Your task to perform on an android device: remove spam from my inbox in the gmail app Image 0: 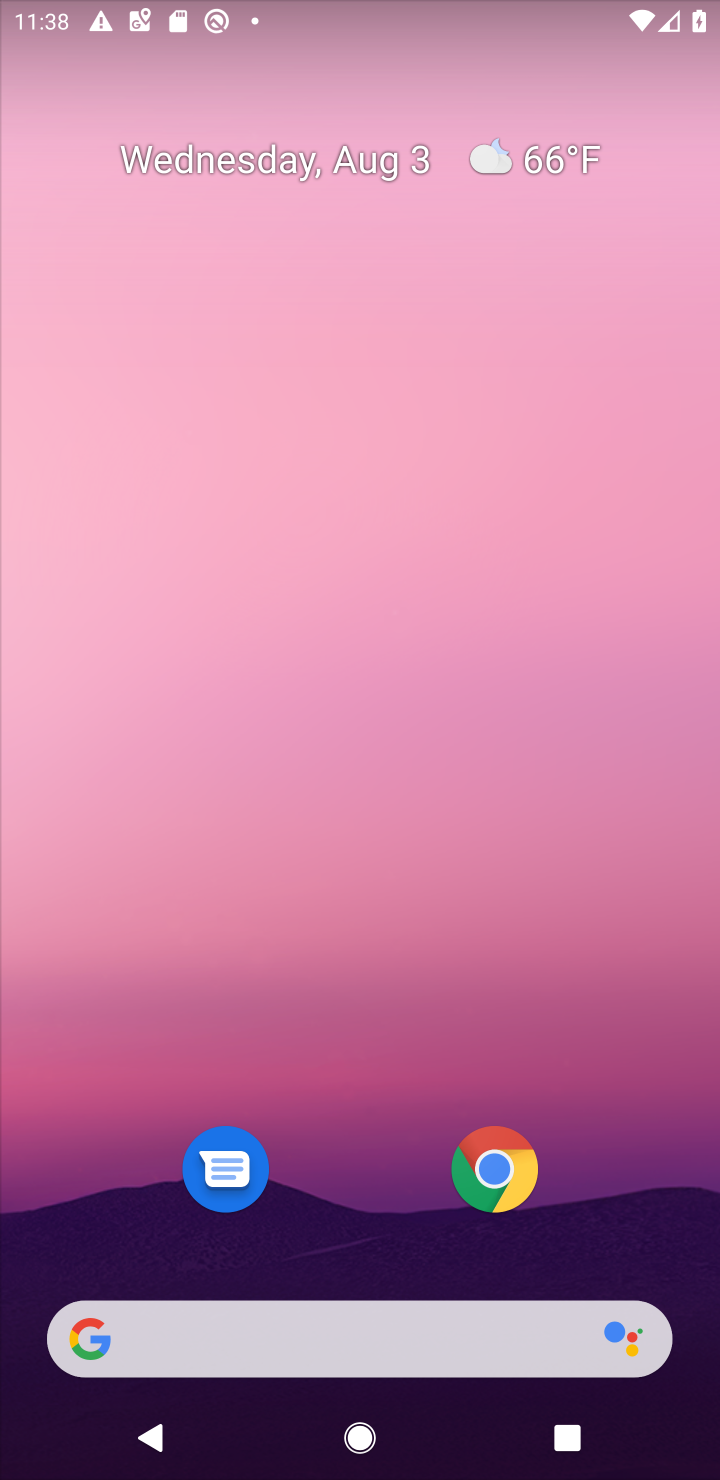
Step 0: drag from (393, 1215) to (382, 77)
Your task to perform on an android device: remove spam from my inbox in the gmail app Image 1: 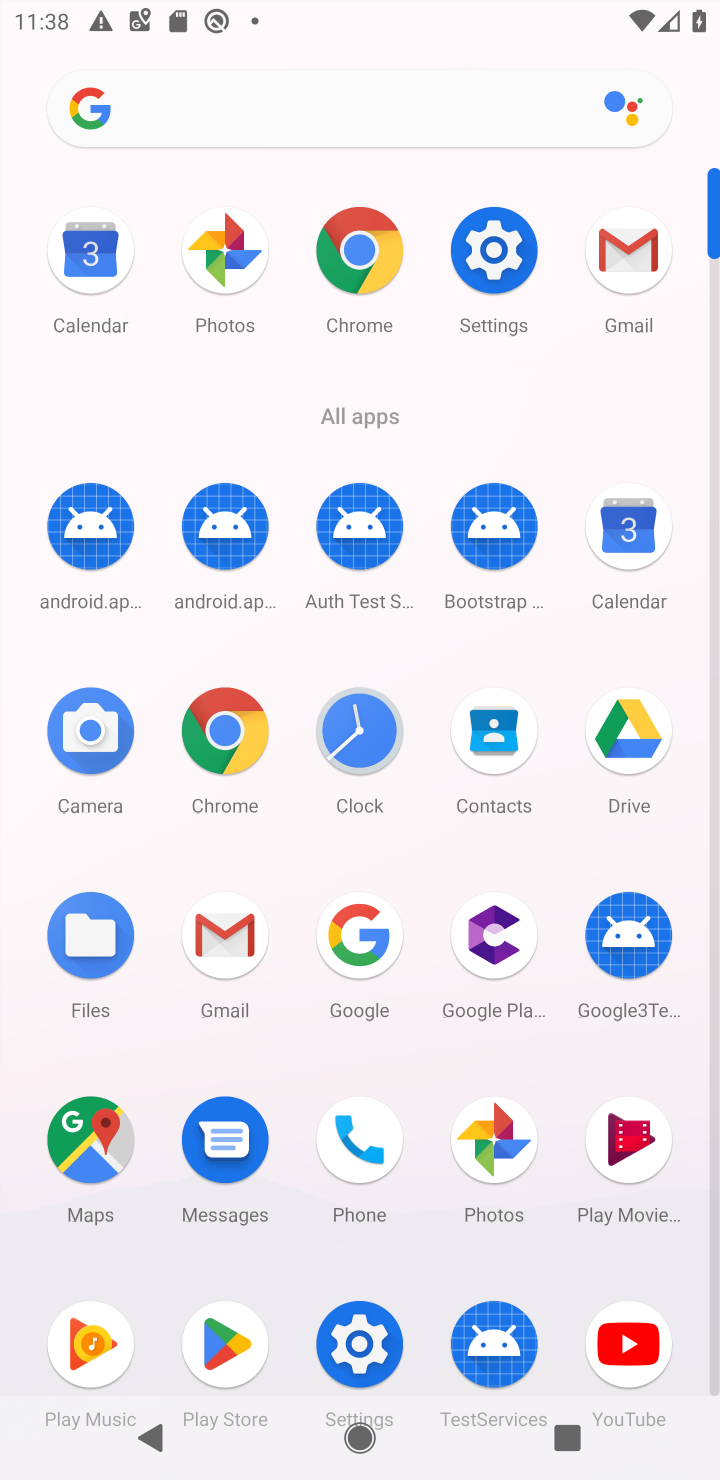
Step 1: click (621, 265)
Your task to perform on an android device: remove spam from my inbox in the gmail app Image 2: 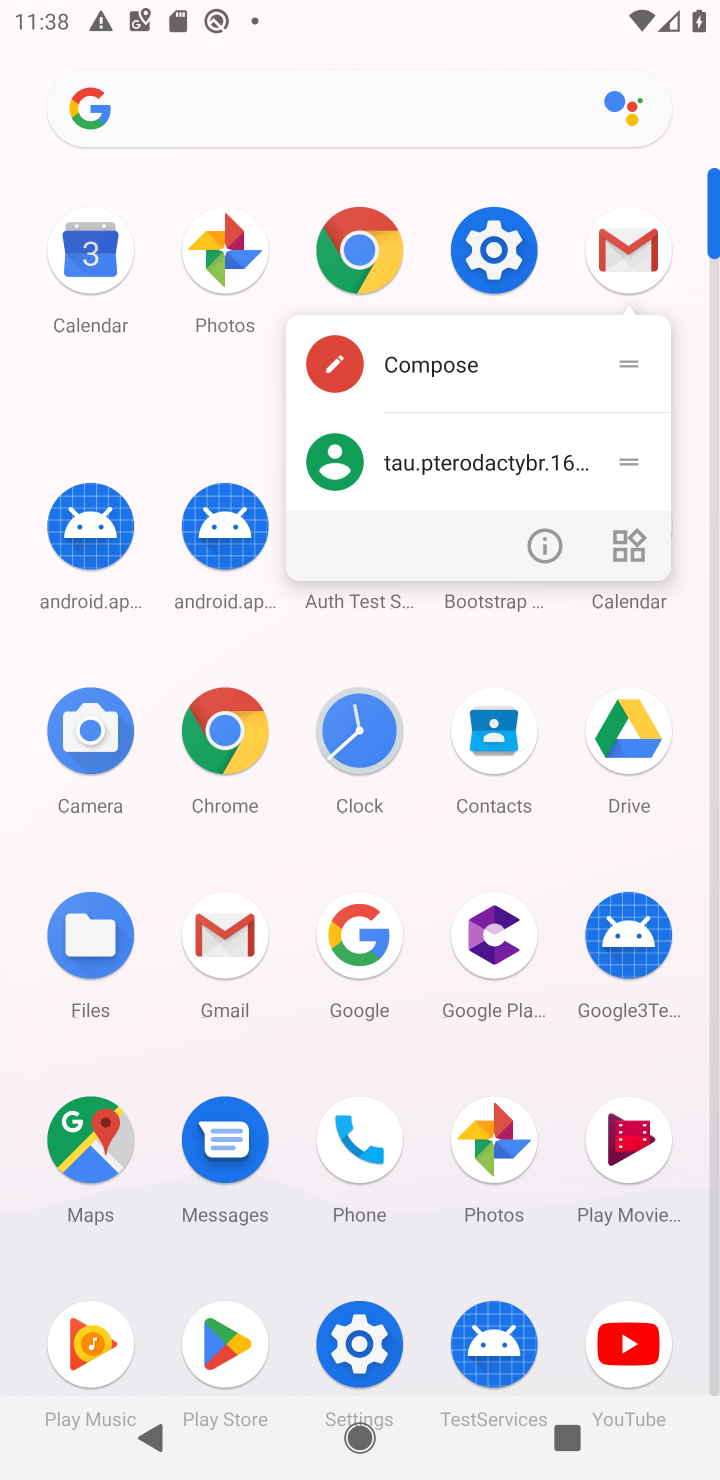
Step 2: click (621, 265)
Your task to perform on an android device: remove spam from my inbox in the gmail app Image 3: 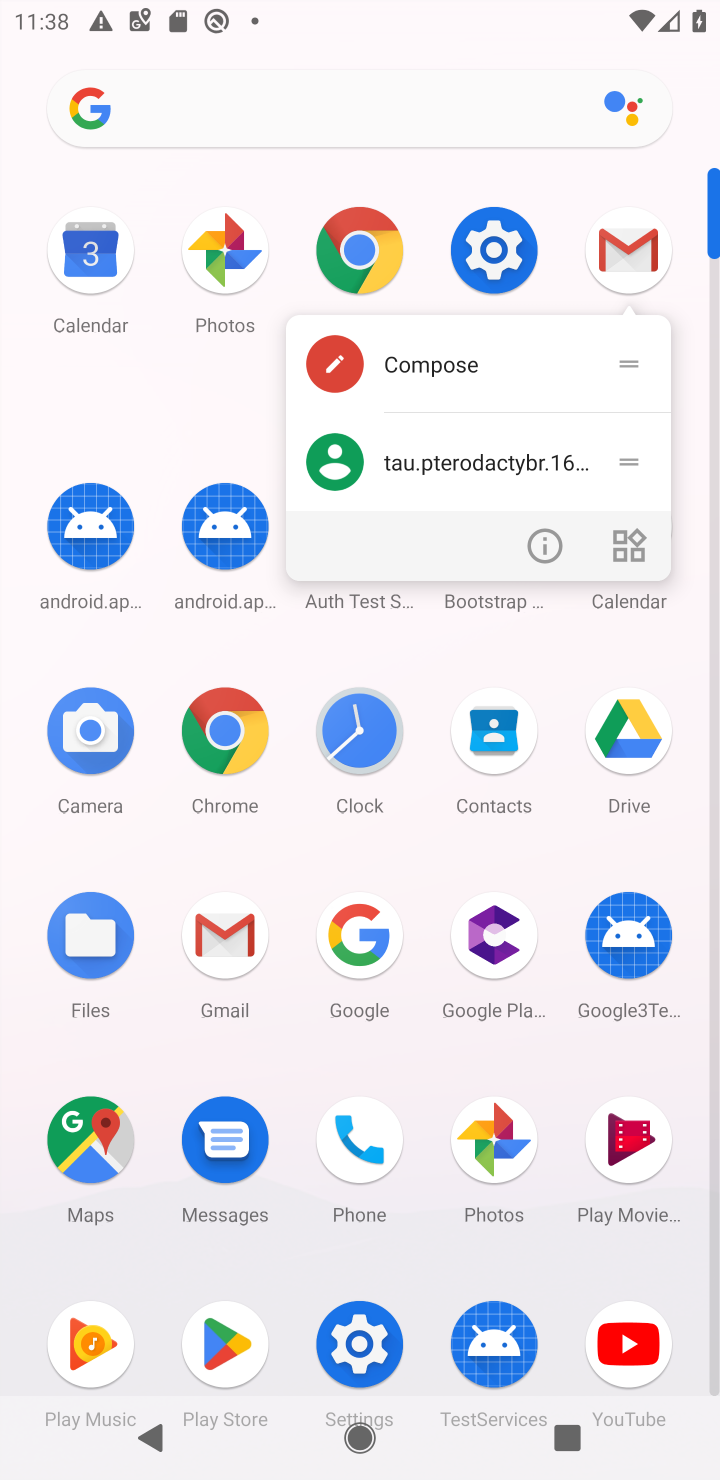
Step 3: click (621, 265)
Your task to perform on an android device: remove spam from my inbox in the gmail app Image 4: 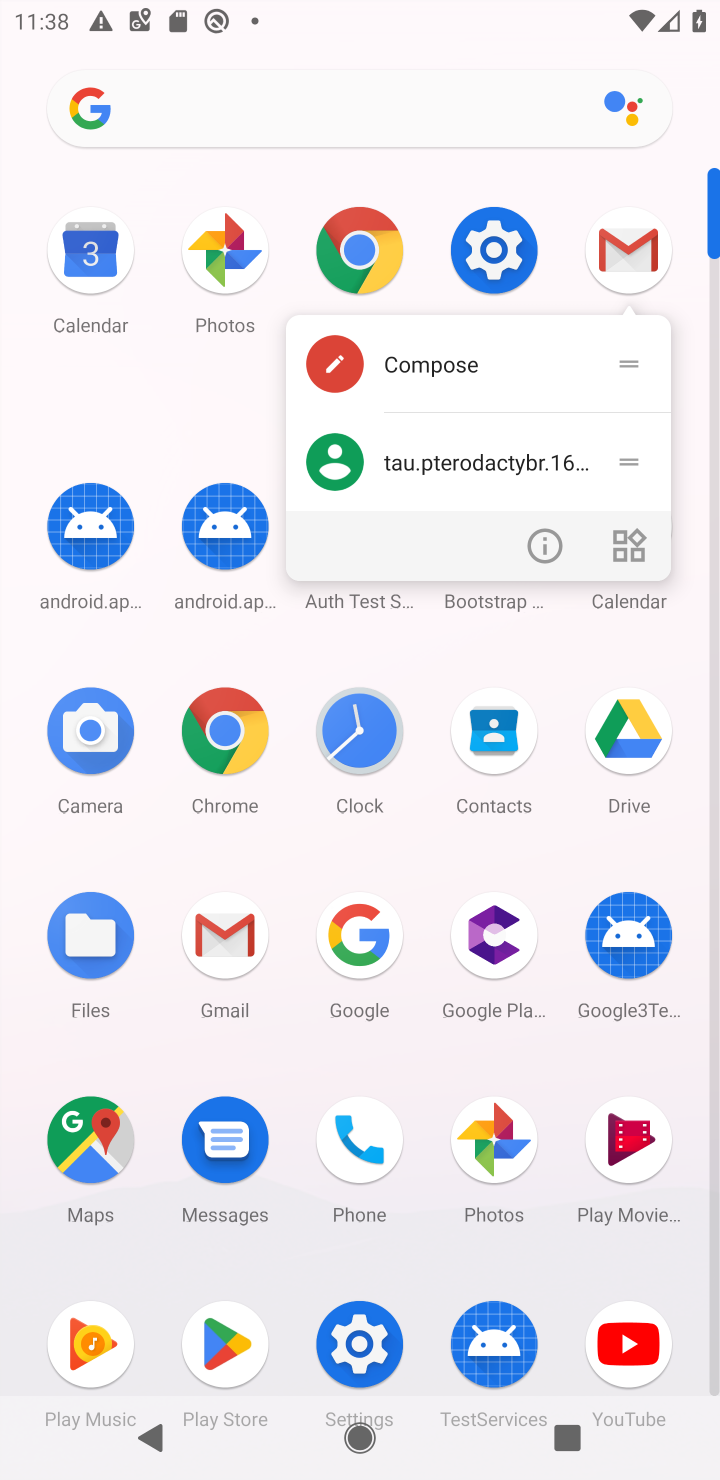
Step 4: click (623, 260)
Your task to perform on an android device: remove spam from my inbox in the gmail app Image 5: 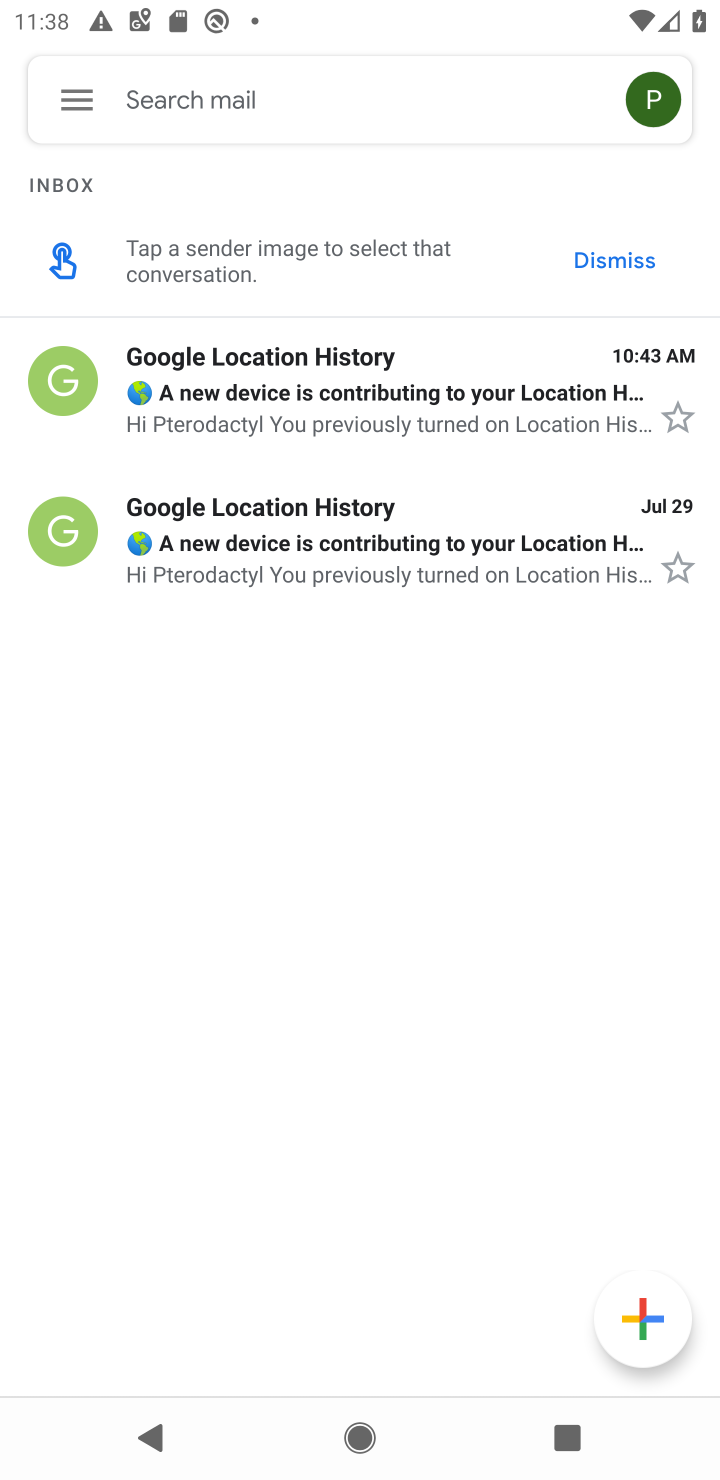
Step 5: click (71, 104)
Your task to perform on an android device: remove spam from my inbox in the gmail app Image 6: 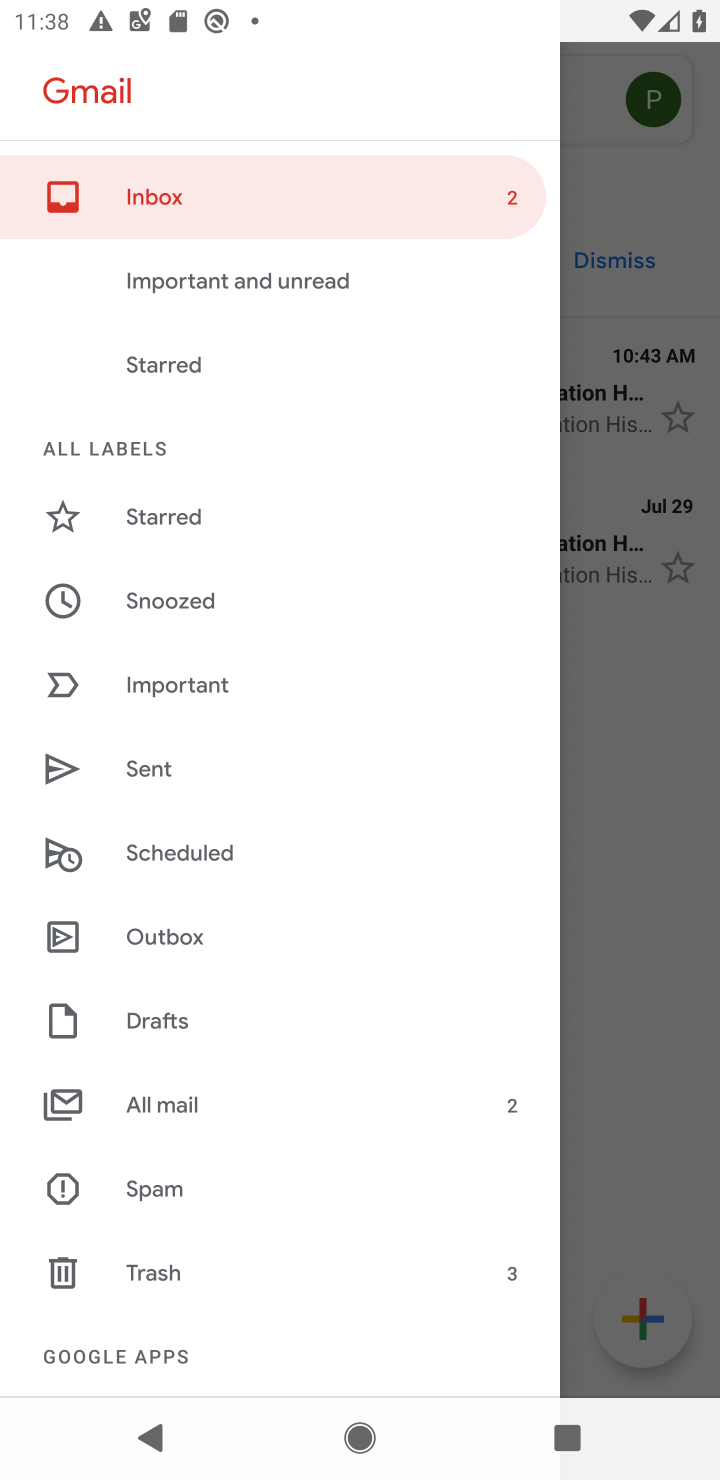
Step 6: click (153, 1198)
Your task to perform on an android device: remove spam from my inbox in the gmail app Image 7: 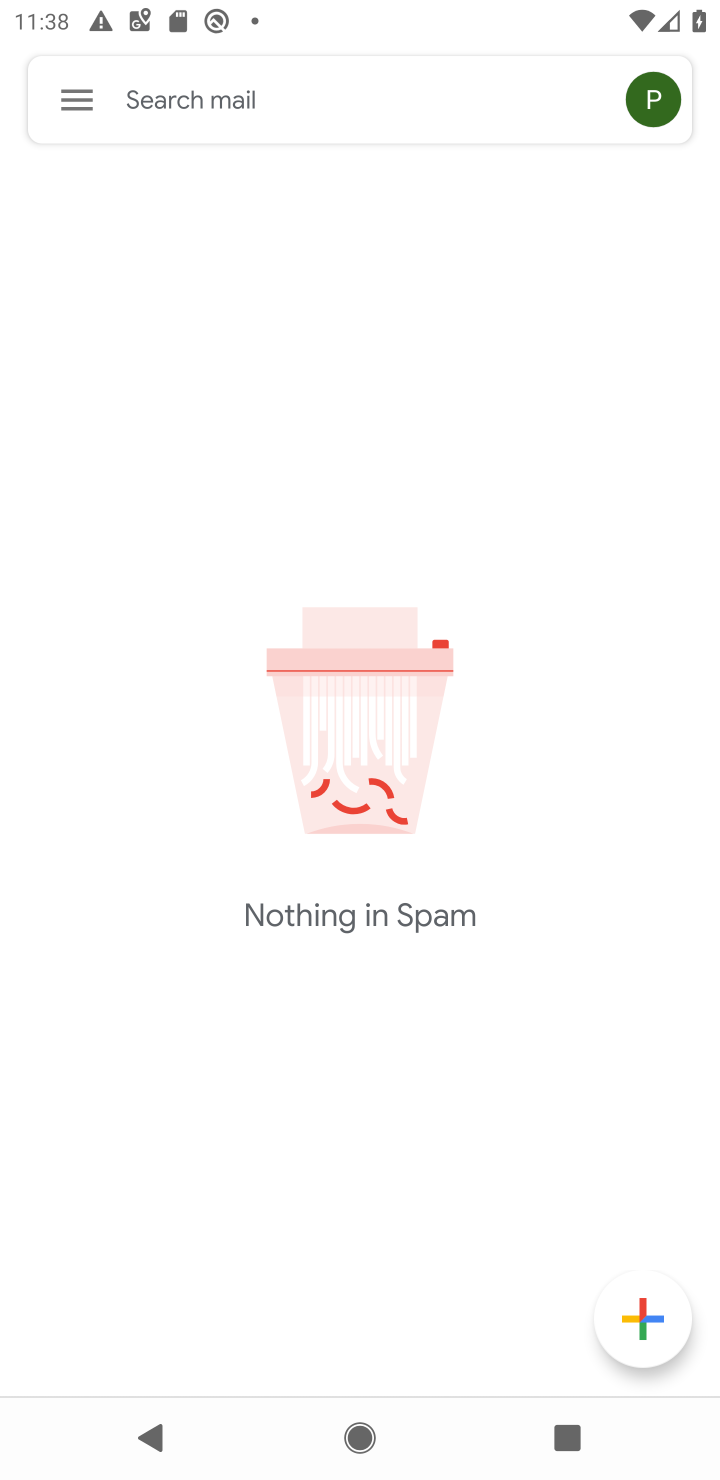
Step 7: task complete